Your task to perform on an android device: find photos in the google photos app Image 0: 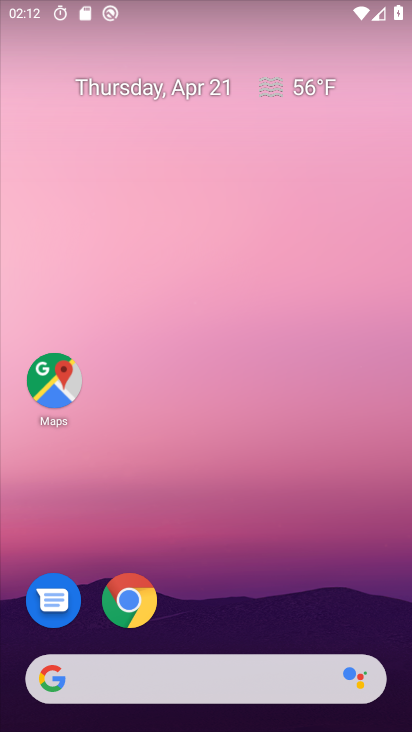
Step 0: drag from (320, 616) to (337, 117)
Your task to perform on an android device: find photos in the google photos app Image 1: 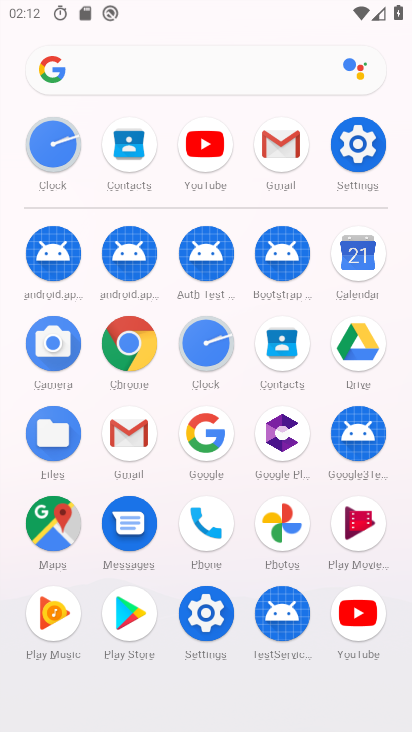
Step 1: click (291, 524)
Your task to perform on an android device: find photos in the google photos app Image 2: 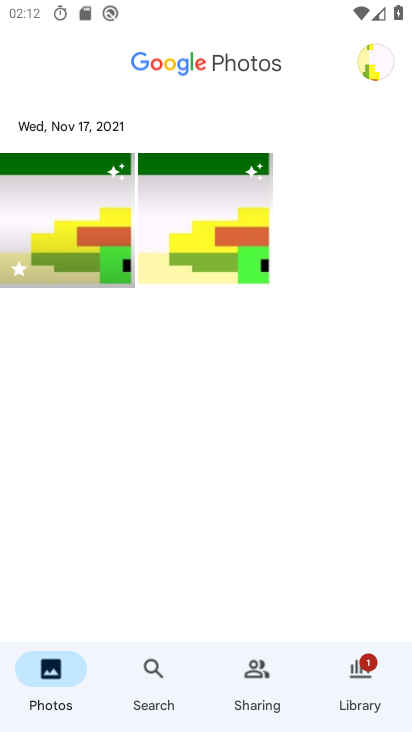
Step 2: task complete